Your task to perform on an android device: uninstall "Mercado Libre" Image 0: 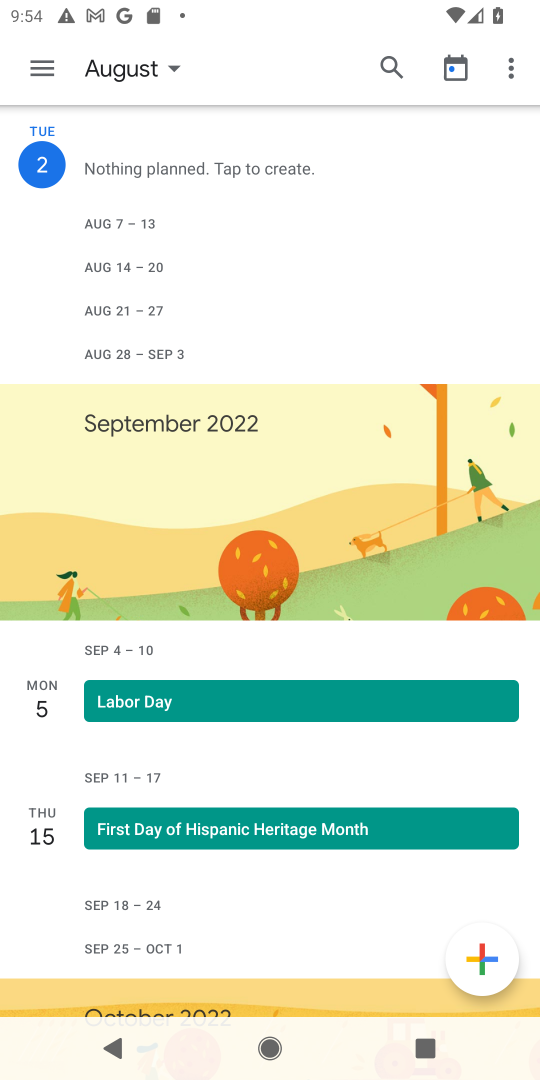
Step 0: press home button
Your task to perform on an android device: uninstall "Mercado Libre" Image 1: 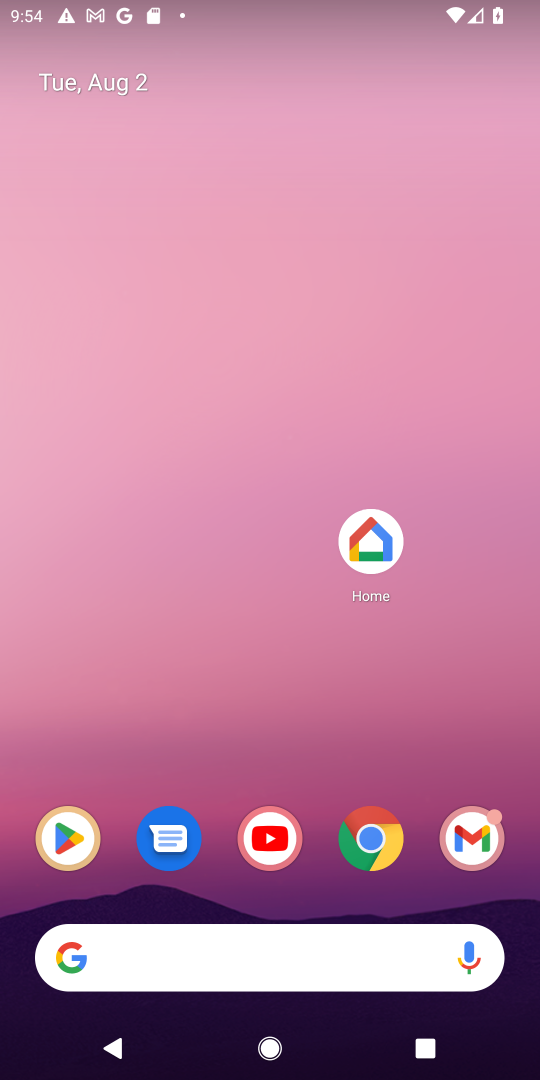
Step 1: drag from (281, 537) to (279, 50)
Your task to perform on an android device: uninstall "Mercado Libre" Image 2: 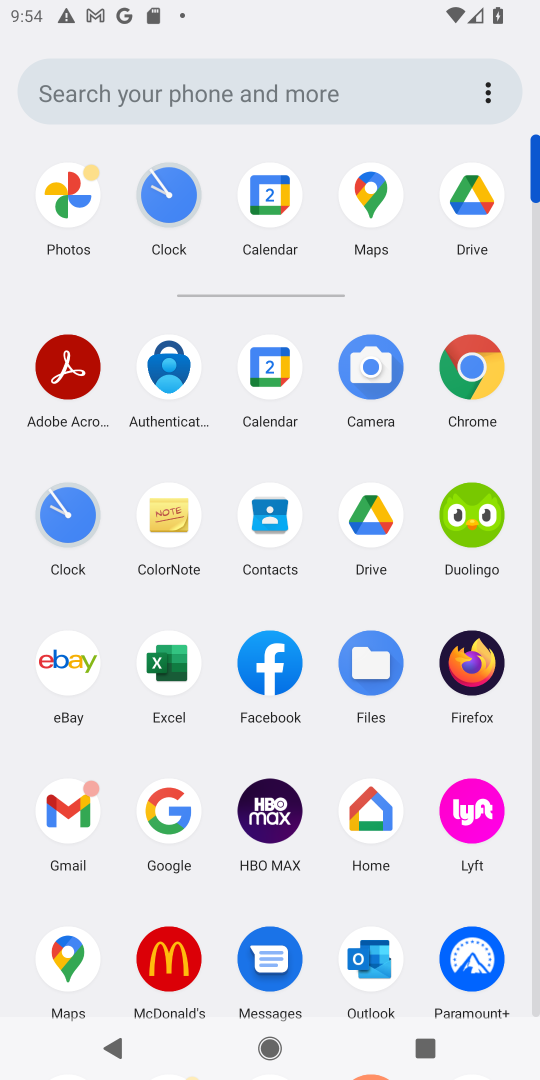
Step 2: drag from (409, 775) to (416, 449)
Your task to perform on an android device: uninstall "Mercado Libre" Image 3: 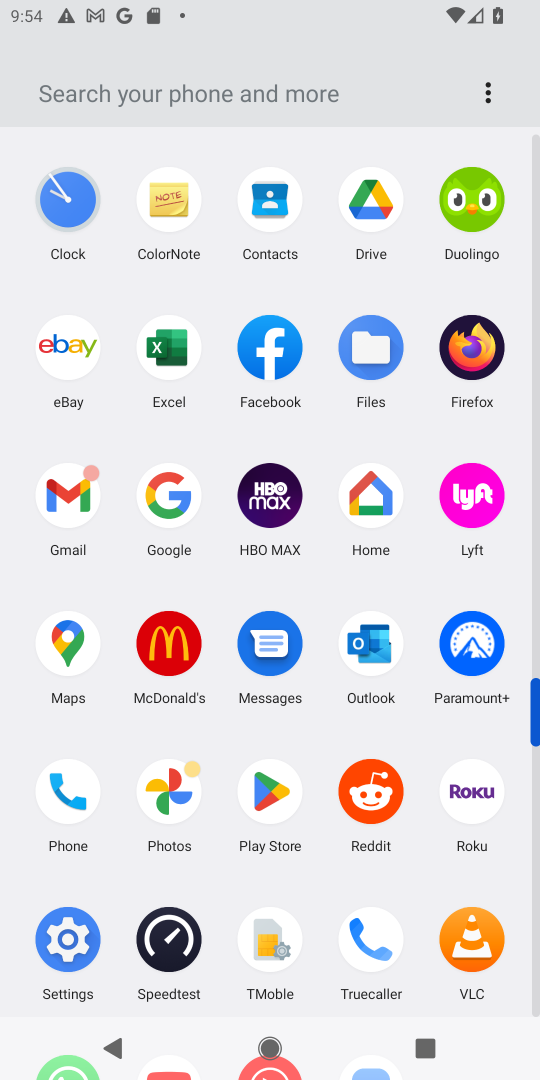
Step 3: click (278, 767)
Your task to perform on an android device: uninstall "Mercado Libre" Image 4: 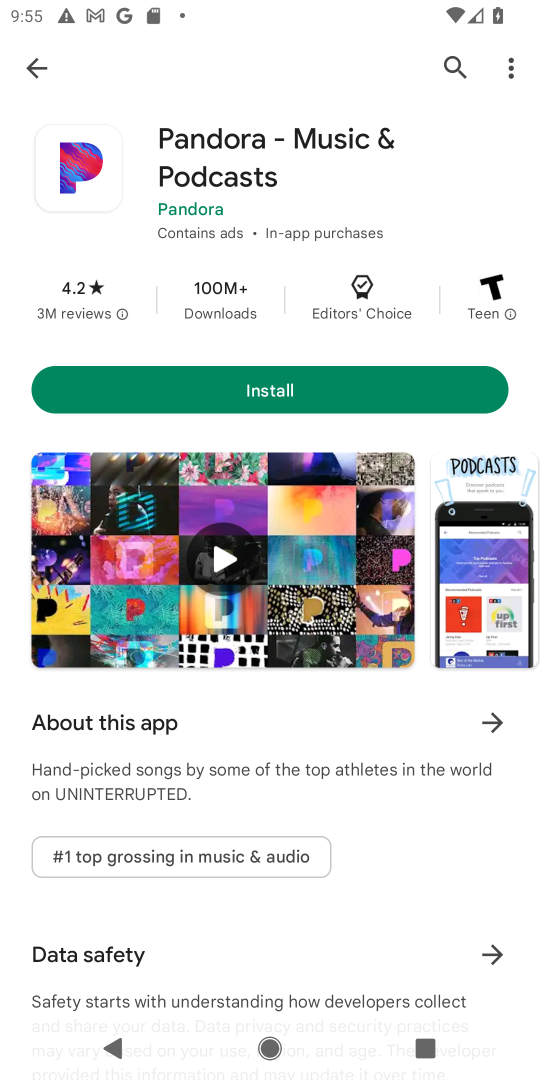
Step 4: click (447, 54)
Your task to perform on an android device: uninstall "Mercado Libre" Image 5: 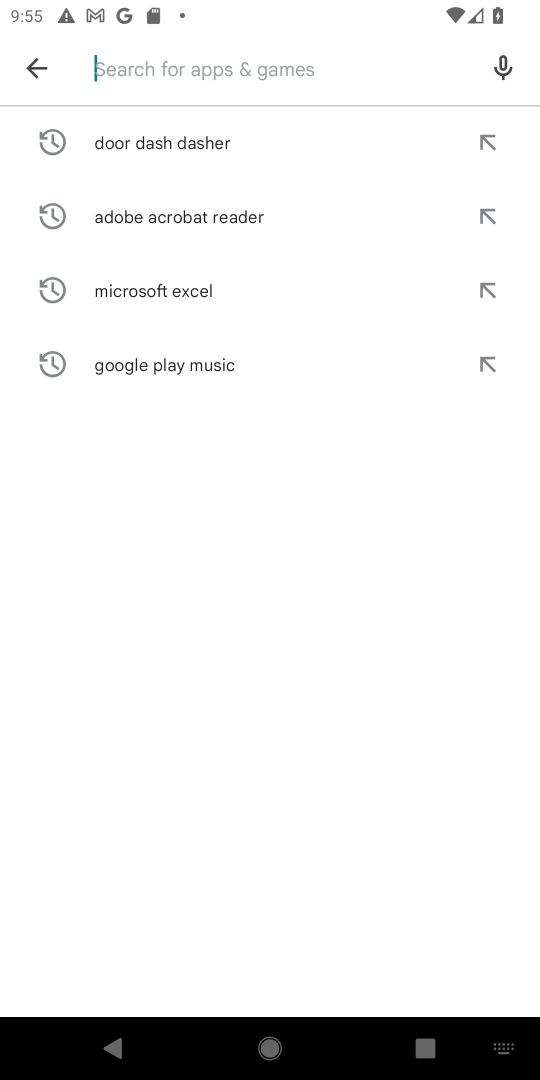
Step 5: click (309, 74)
Your task to perform on an android device: uninstall "Mercado Libre" Image 6: 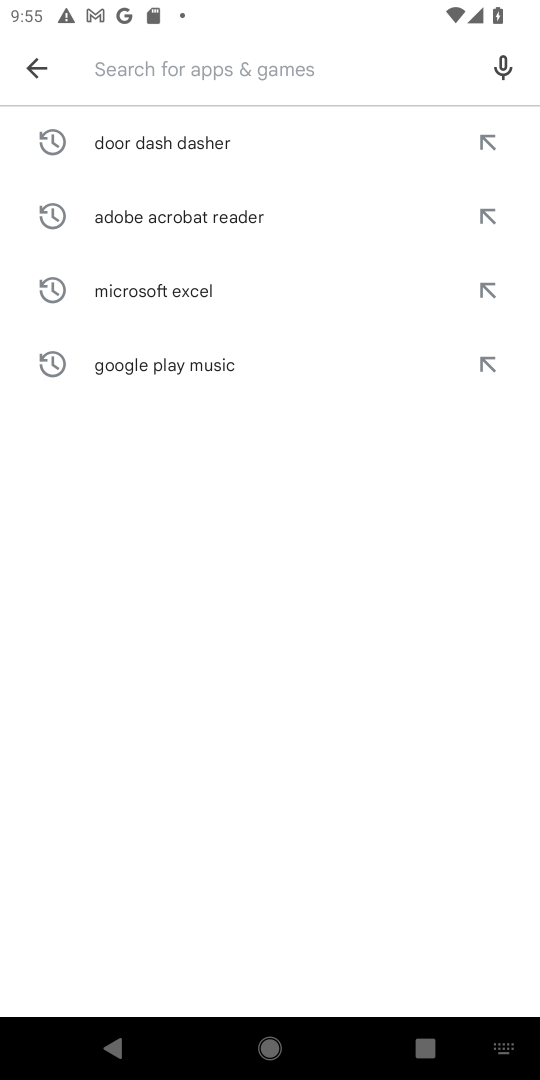
Step 6: type "mercado libre"
Your task to perform on an android device: uninstall "Mercado Libre" Image 7: 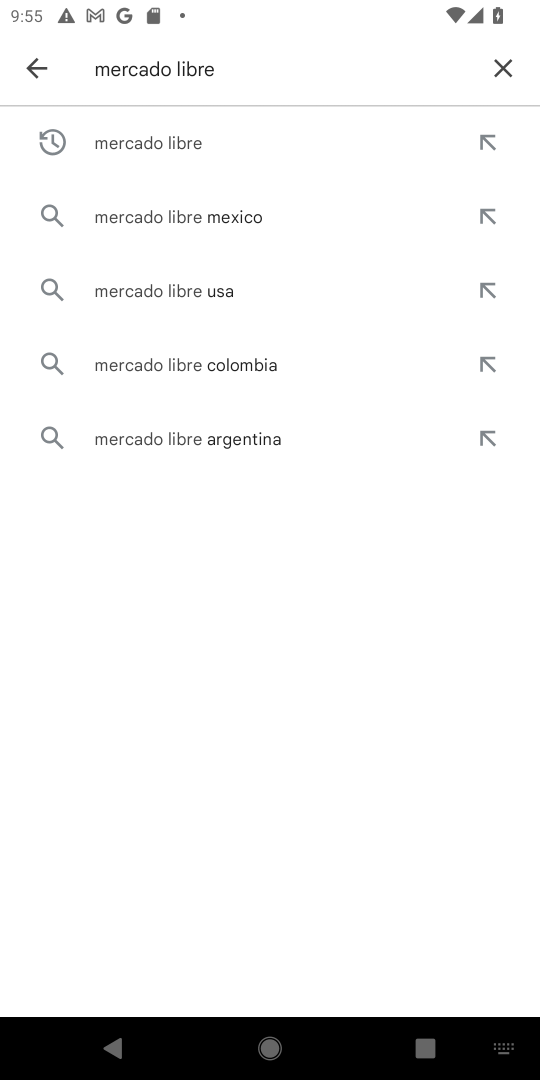
Step 7: click (234, 128)
Your task to perform on an android device: uninstall "Mercado Libre" Image 8: 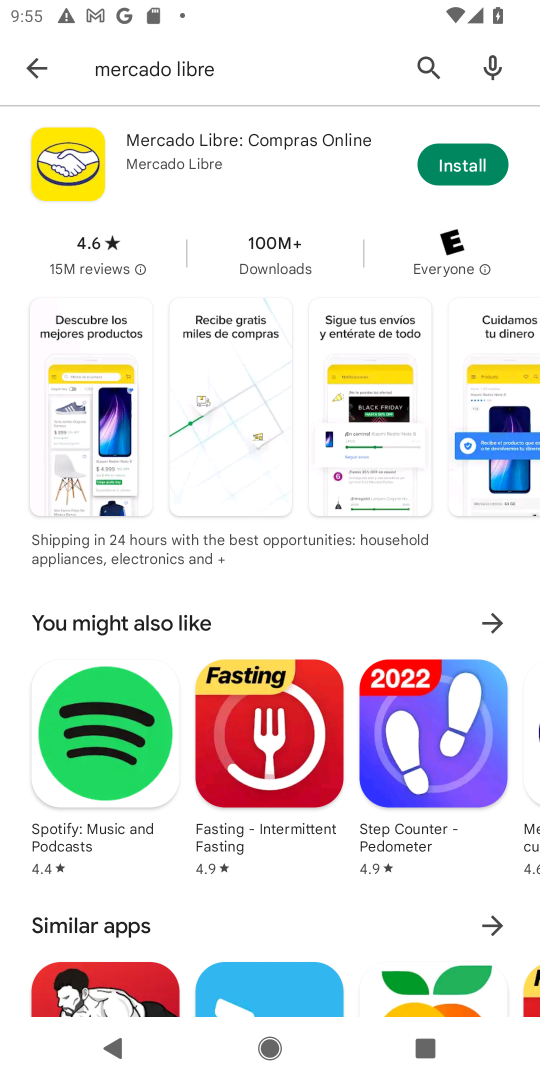
Step 8: task complete